Your task to perform on an android device: turn off priority inbox in the gmail app Image 0: 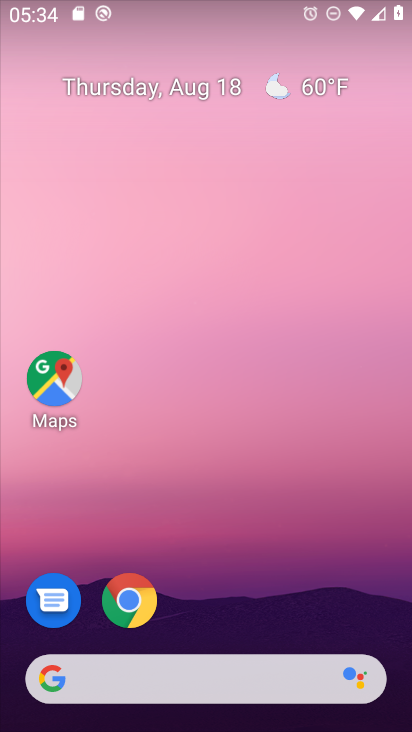
Step 0: drag from (211, 633) to (286, 3)
Your task to perform on an android device: turn off priority inbox in the gmail app Image 1: 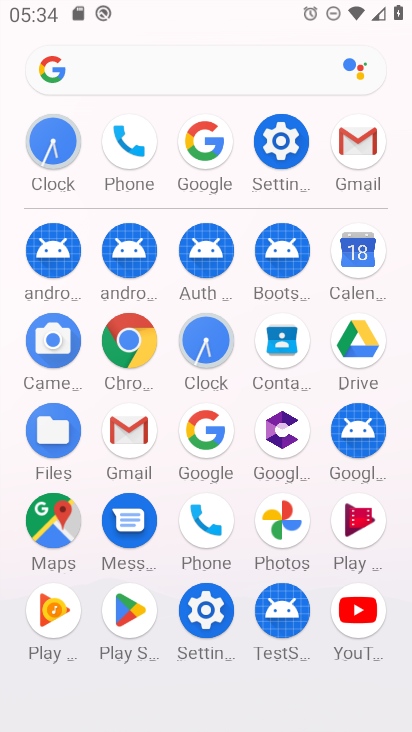
Step 1: click (133, 444)
Your task to perform on an android device: turn off priority inbox in the gmail app Image 2: 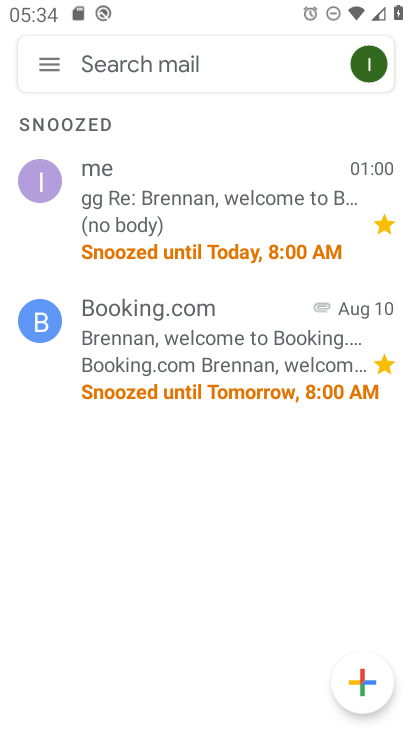
Step 2: click (50, 72)
Your task to perform on an android device: turn off priority inbox in the gmail app Image 3: 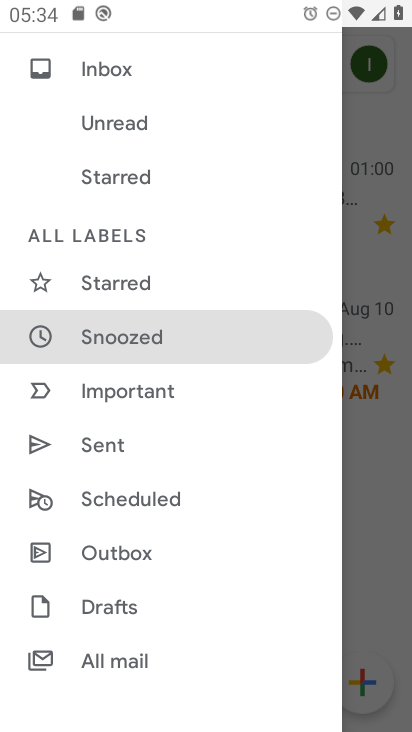
Step 3: drag from (187, 629) to (105, 97)
Your task to perform on an android device: turn off priority inbox in the gmail app Image 4: 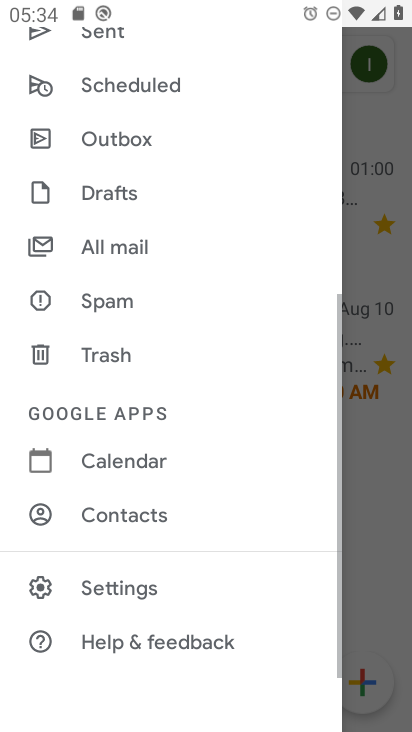
Step 4: click (108, 585)
Your task to perform on an android device: turn off priority inbox in the gmail app Image 5: 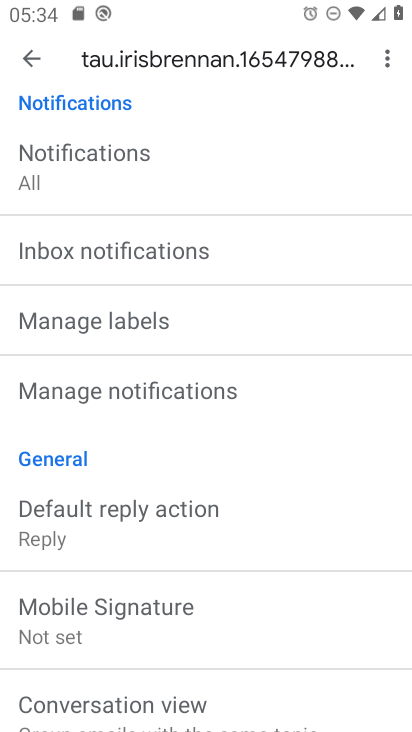
Step 5: drag from (213, 184) to (199, 632)
Your task to perform on an android device: turn off priority inbox in the gmail app Image 6: 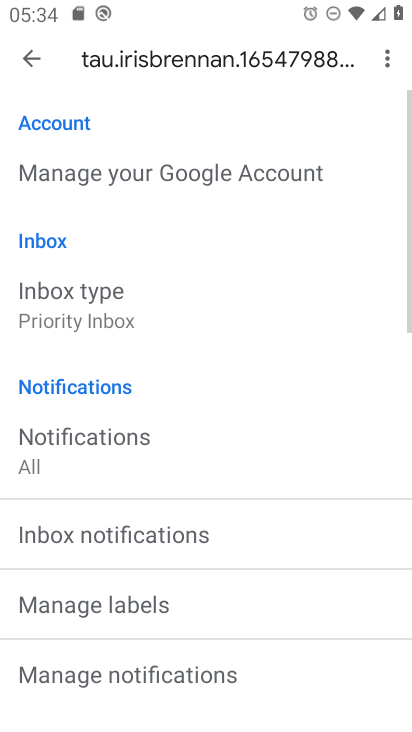
Step 6: click (101, 305)
Your task to perform on an android device: turn off priority inbox in the gmail app Image 7: 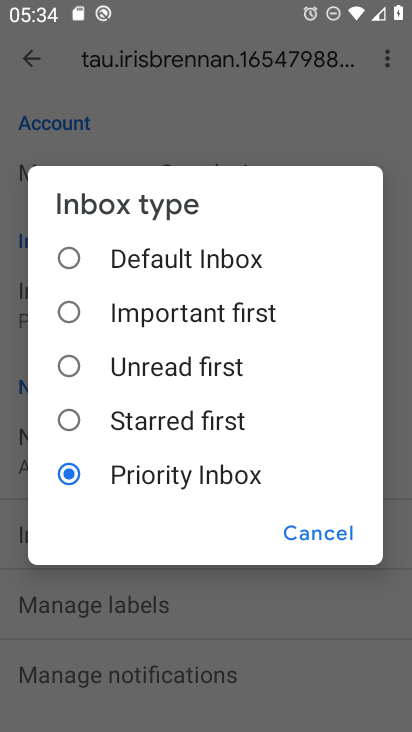
Step 7: click (69, 257)
Your task to perform on an android device: turn off priority inbox in the gmail app Image 8: 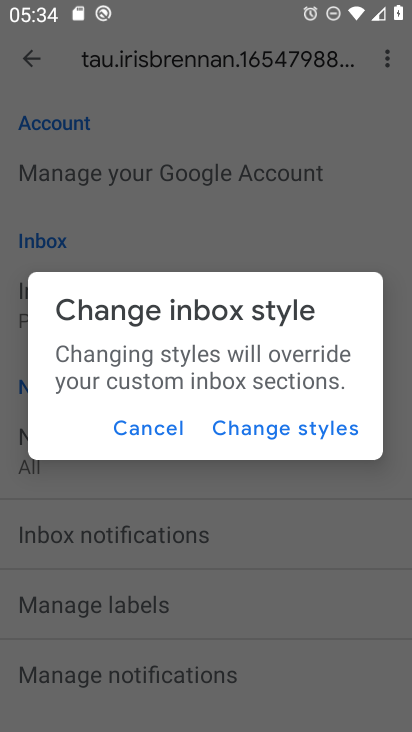
Step 8: click (314, 430)
Your task to perform on an android device: turn off priority inbox in the gmail app Image 9: 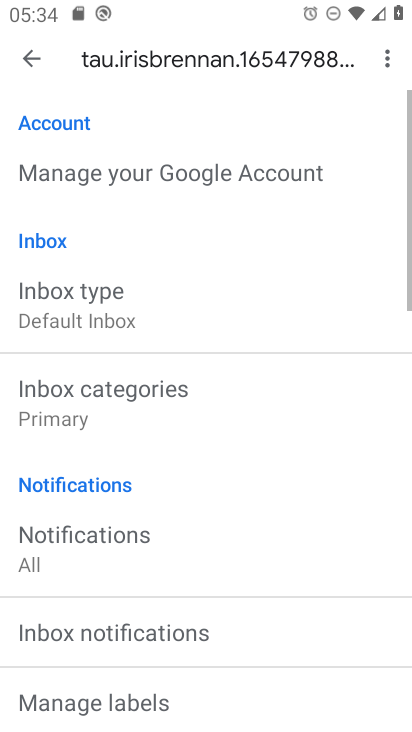
Step 9: task complete